Your task to perform on an android device: What's on my calendar tomorrow? Image 0: 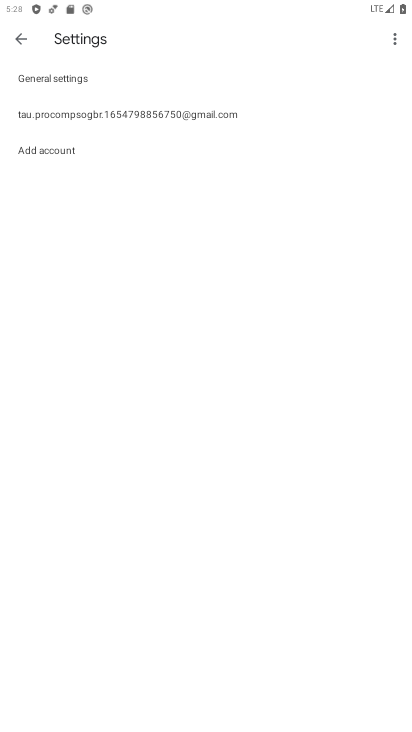
Step 0: press home button
Your task to perform on an android device: What's on my calendar tomorrow? Image 1: 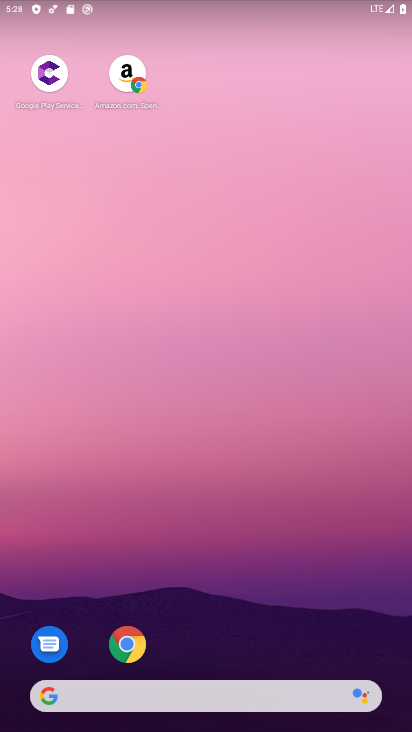
Step 1: drag from (288, 657) to (219, 78)
Your task to perform on an android device: What's on my calendar tomorrow? Image 2: 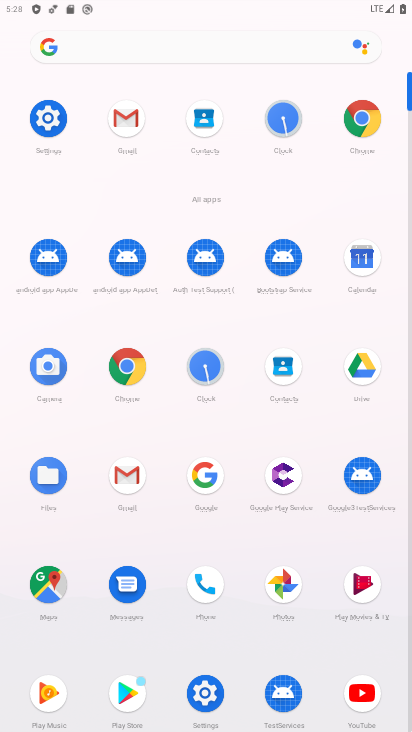
Step 2: click (367, 271)
Your task to perform on an android device: What's on my calendar tomorrow? Image 3: 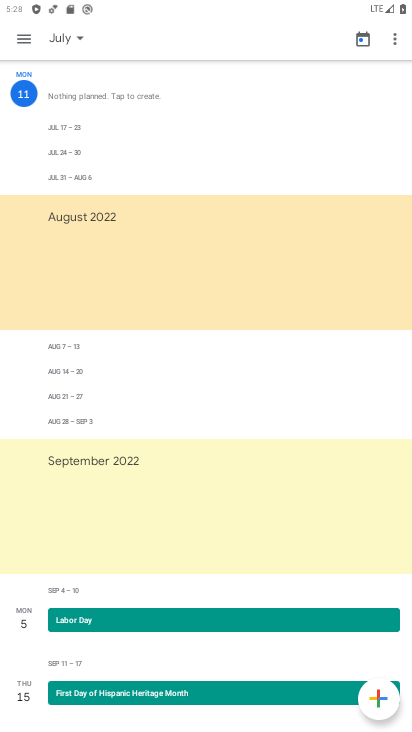
Step 3: click (84, 38)
Your task to perform on an android device: What's on my calendar tomorrow? Image 4: 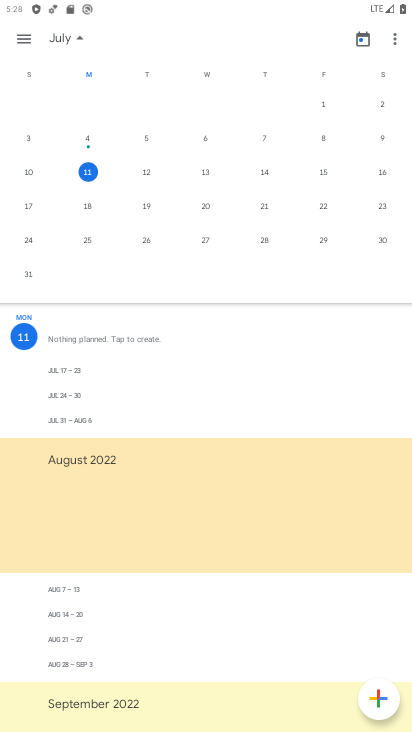
Step 4: click (150, 170)
Your task to perform on an android device: What's on my calendar tomorrow? Image 5: 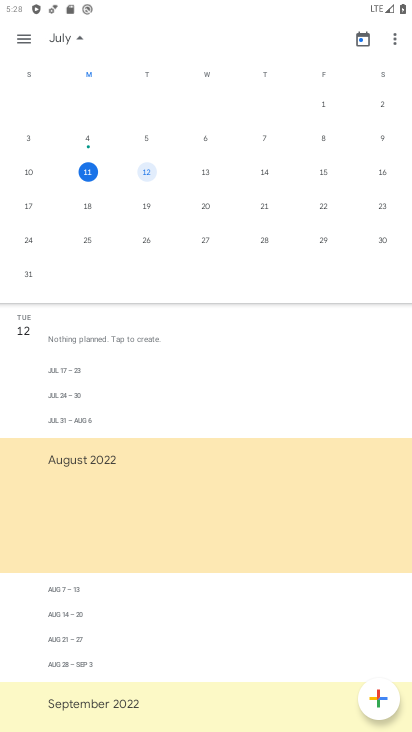
Step 5: task complete